Your task to perform on an android device: turn on translation in the chrome app Image 0: 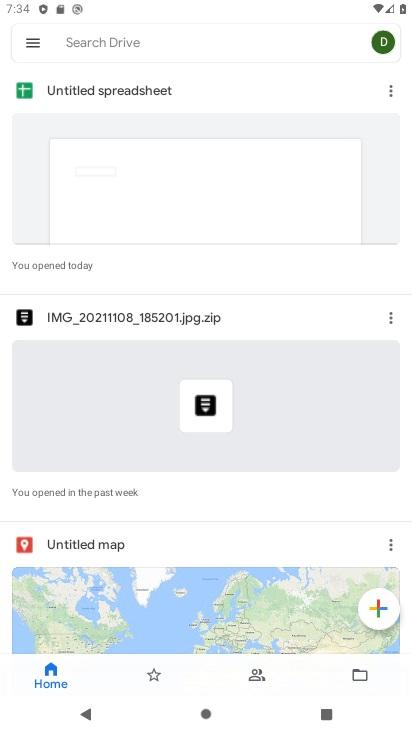
Step 0: press home button
Your task to perform on an android device: turn on translation in the chrome app Image 1: 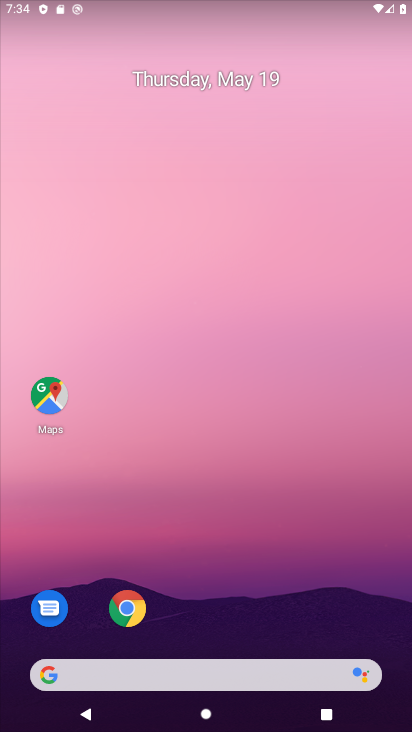
Step 1: click (124, 610)
Your task to perform on an android device: turn on translation in the chrome app Image 2: 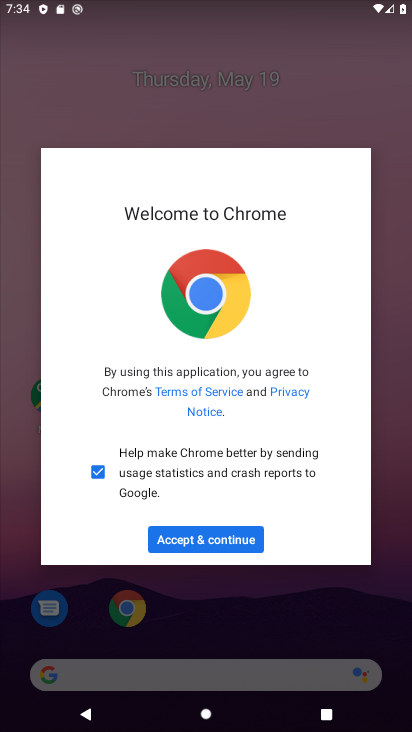
Step 2: click (194, 544)
Your task to perform on an android device: turn on translation in the chrome app Image 3: 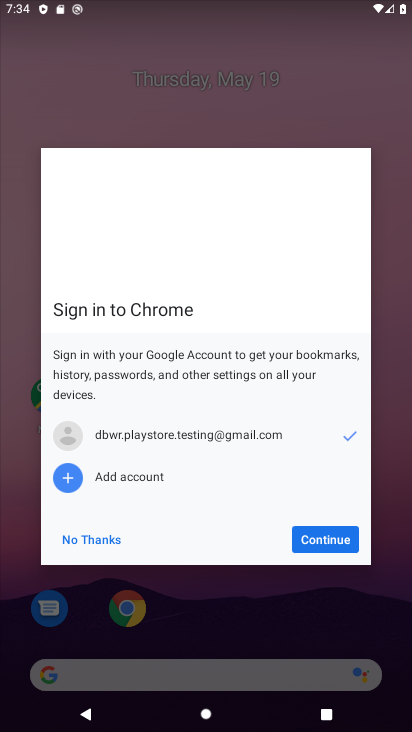
Step 3: click (333, 534)
Your task to perform on an android device: turn on translation in the chrome app Image 4: 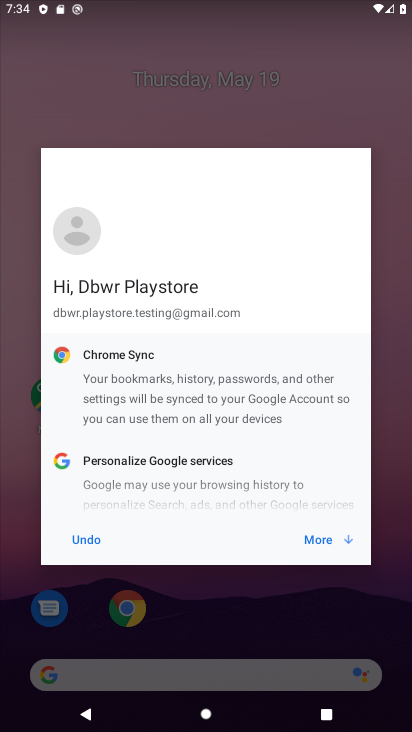
Step 4: click (333, 534)
Your task to perform on an android device: turn on translation in the chrome app Image 5: 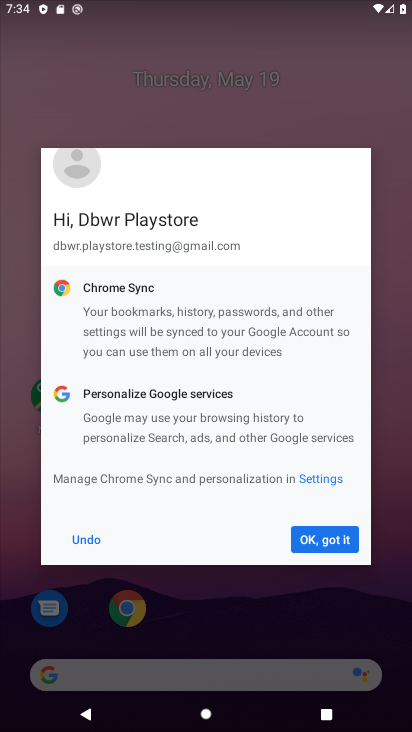
Step 5: click (308, 547)
Your task to perform on an android device: turn on translation in the chrome app Image 6: 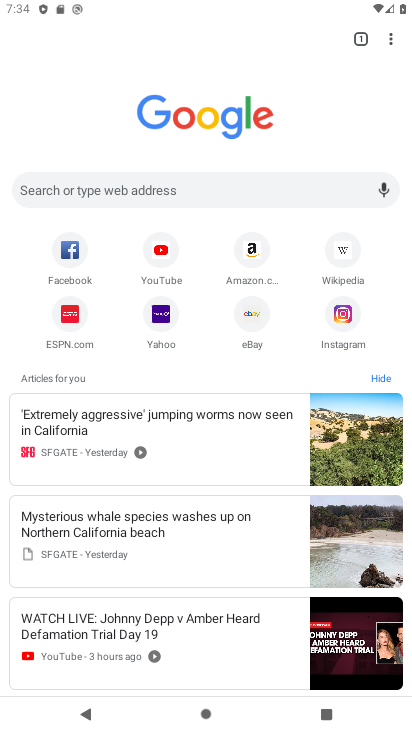
Step 6: click (389, 36)
Your task to perform on an android device: turn on translation in the chrome app Image 7: 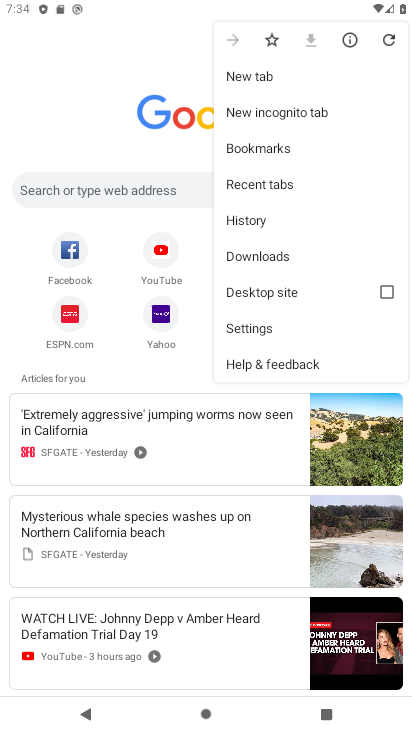
Step 7: click (257, 322)
Your task to perform on an android device: turn on translation in the chrome app Image 8: 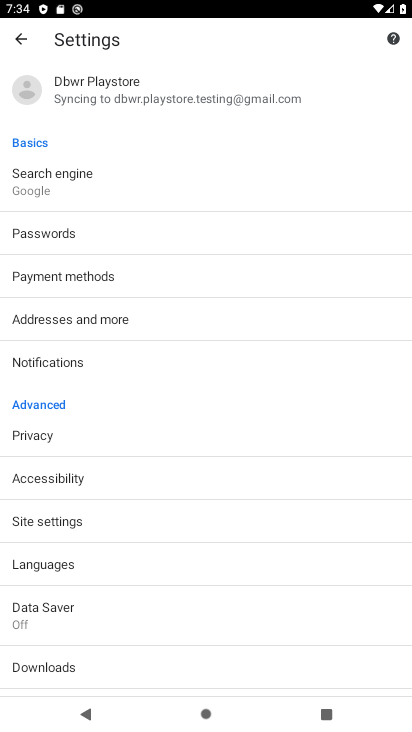
Step 8: click (102, 549)
Your task to perform on an android device: turn on translation in the chrome app Image 9: 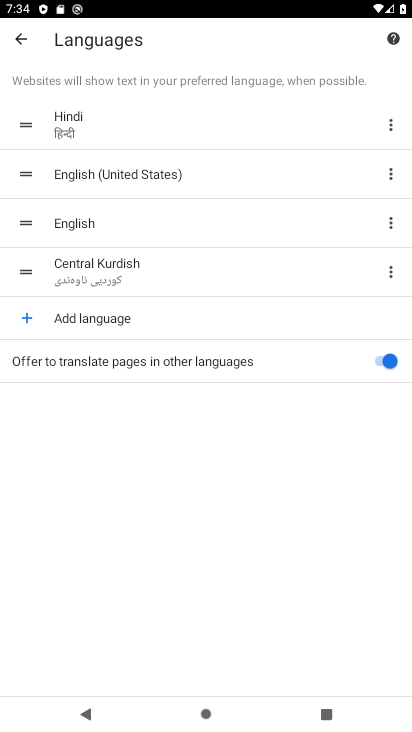
Step 9: task complete